Your task to perform on an android device: Go to settings Image 0: 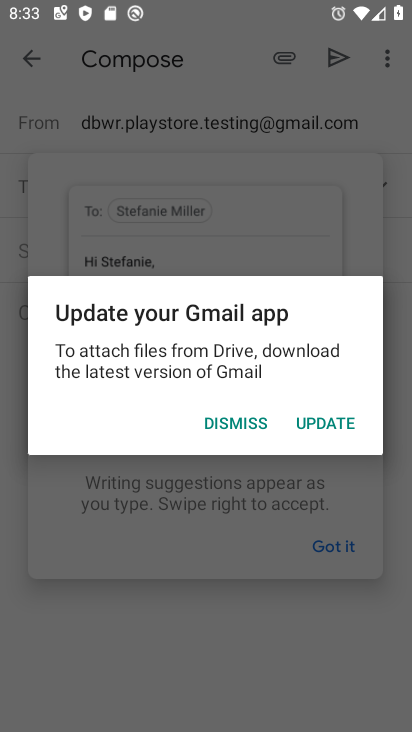
Step 0: press home button
Your task to perform on an android device: Go to settings Image 1: 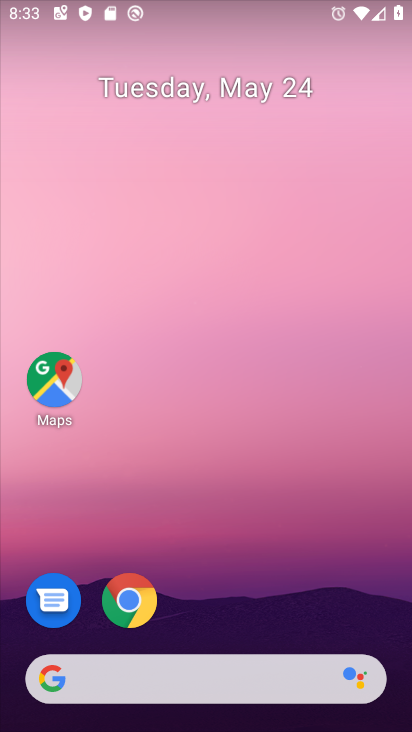
Step 1: drag from (237, 728) to (230, 60)
Your task to perform on an android device: Go to settings Image 2: 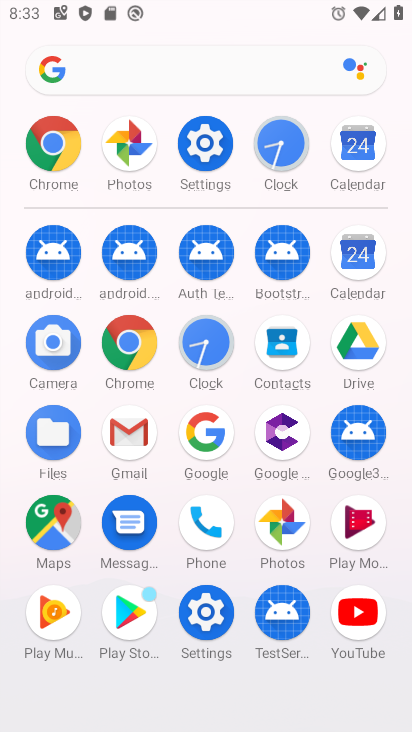
Step 2: click (203, 138)
Your task to perform on an android device: Go to settings Image 3: 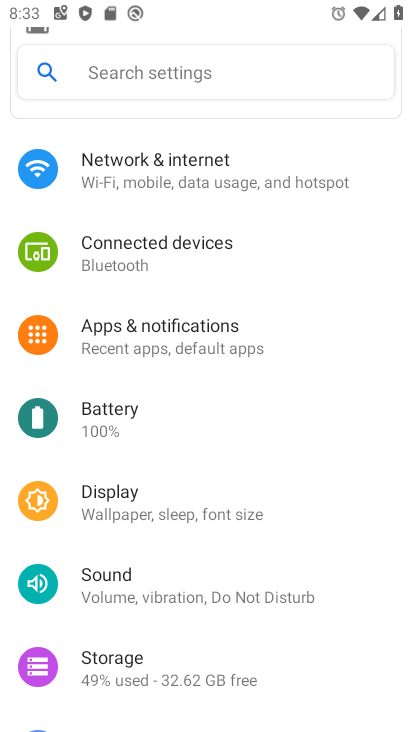
Step 3: task complete